Your task to perform on an android device: stop showing notifications on the lock screen Image 0: 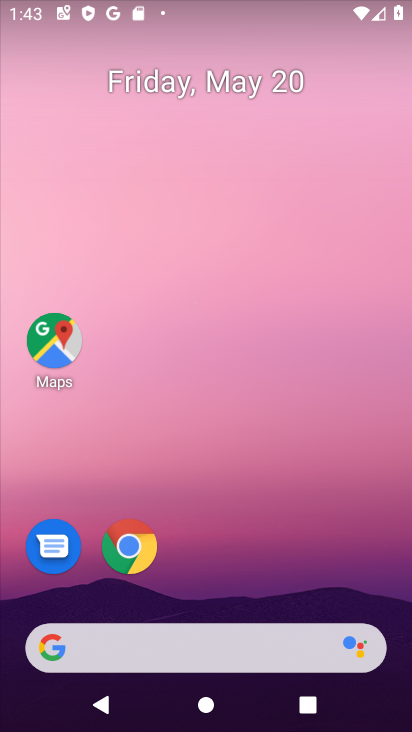
Step 0: drag from (245, 615) to (241, 28)
Your task to perform on an android device: stop showing notifications on the lock screen Image 1: 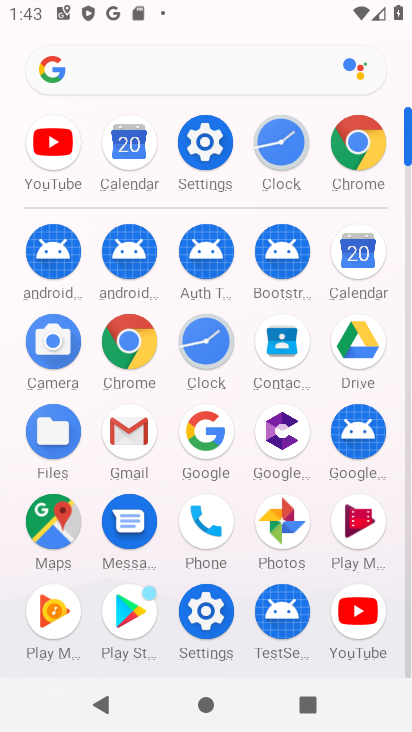
Step 1: click (207, 131)
Your task to perform on an android device: stop showing notifications on the lock screen Image 2: 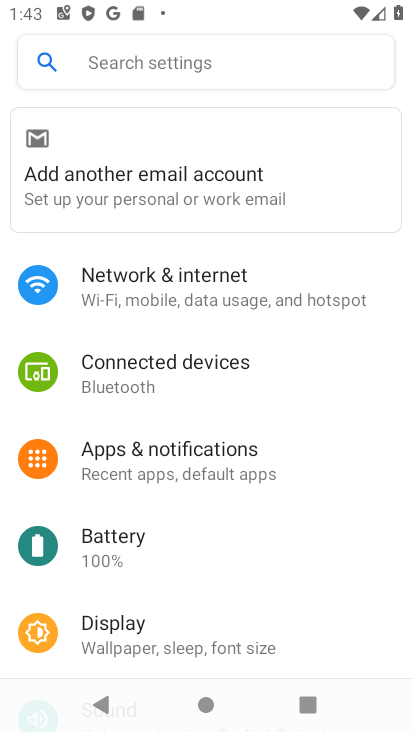
Step 2: click (177, 461)
Your task to perform on an android device: stop showing notifications on the lock screen Image 3: 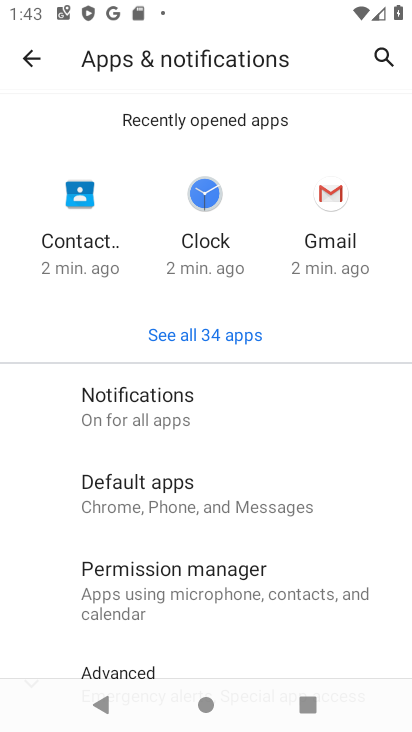
Step 3: click (216, 399)
Your task to perform on an android device: stop showing notifications on the lock screen Image 4: 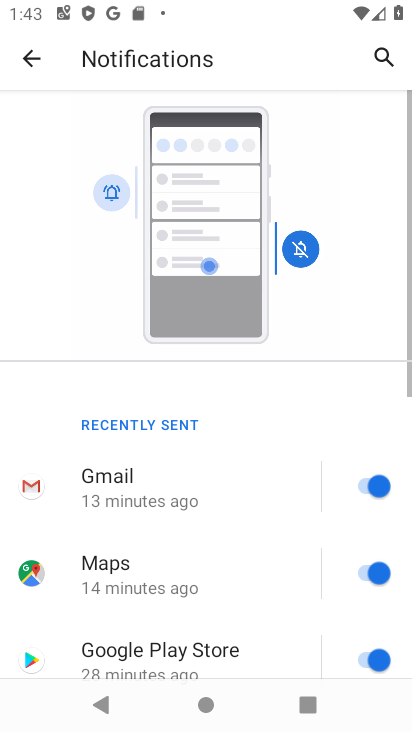
Step 4: drag from (238, 608) to (229, 21)
Your task to perform on an android device: stop showing notifications on the lock screen Image 5: 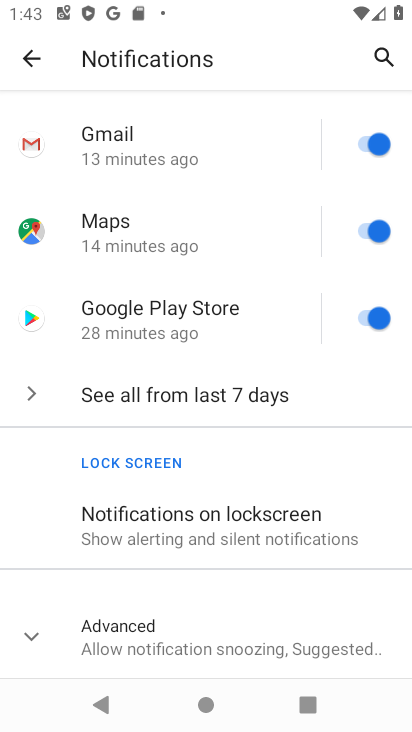
Step 5: click (220, 515)
Your task to perform on an android device: stop showing notifications on the lock screen Image 6: 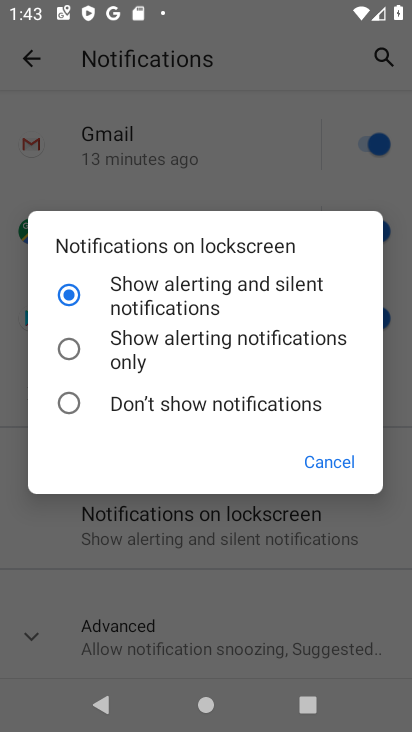
Step 6: click (78, 398)
Your task to perform on an android device: stop showing notifications on the lock screen Image 7: 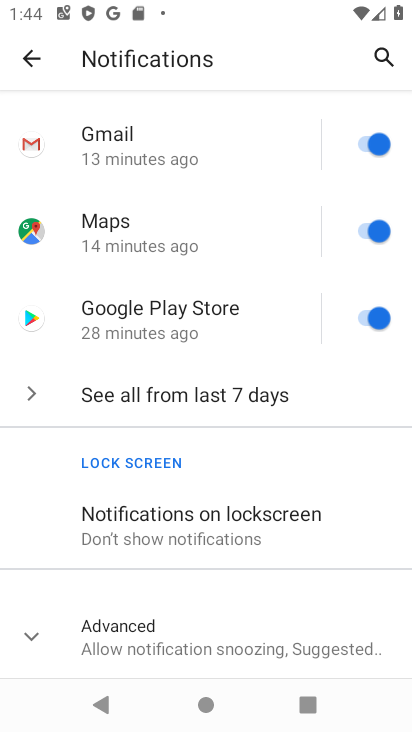
Step 7: task complete